Your task to perform on an android device: toggle notifications settings in the gmail app Image 0: 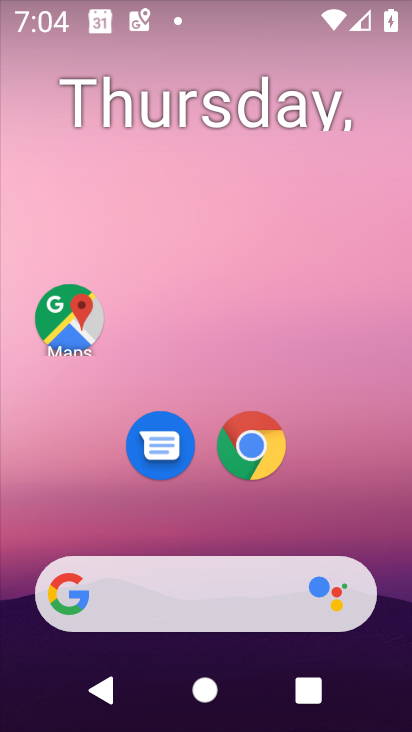
Step 0: drag from (404, 614) to (212, 0)
Your task to perform on an android device: toggle notifications settings in the gmail app Image 1: 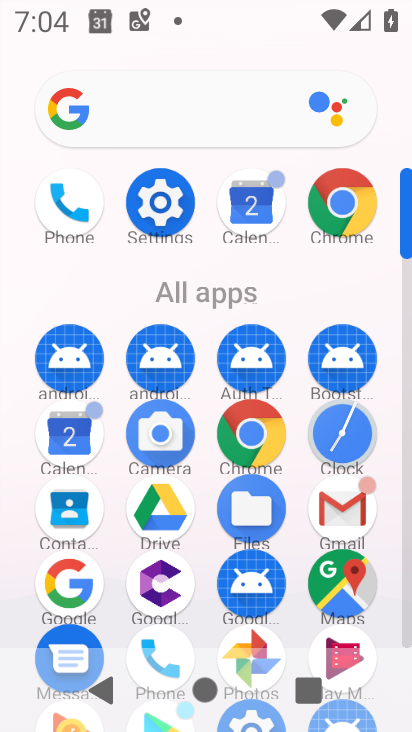
Step 1: click (334, 503)
Your task to perform on an android device: toggle notifications settings in the gmail app Image 2: 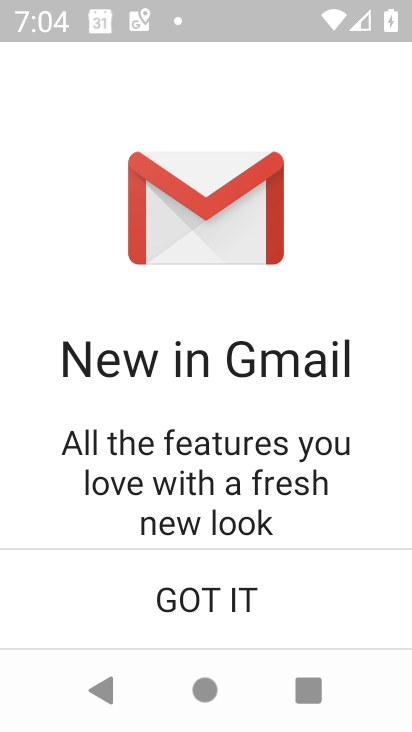
Step 2: click (208, 617)
Your task to perform on an android device: toggle notifications settings in the gmail app Image 3: 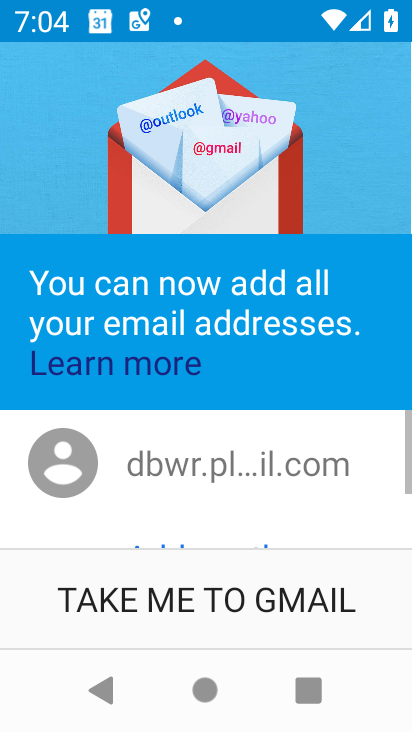
Step 3: click (208, 617)
Your task to perform on an android device: toggle notifications settings in the gmail app Image 4: 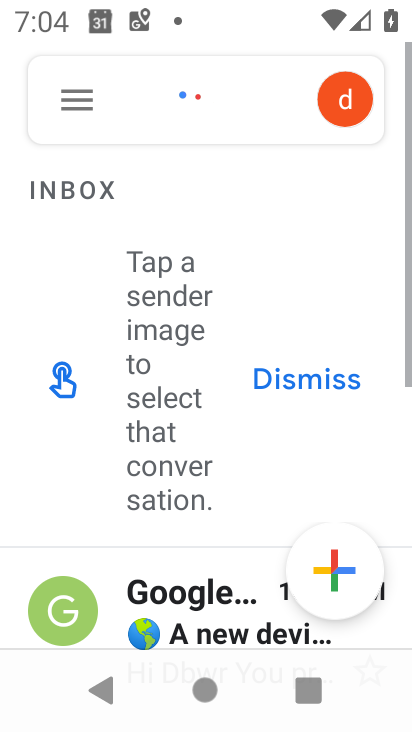
Step 4: click (63, 77)
Your task to perform on an android device: toggle notifications settings in the gmail app Image 5: 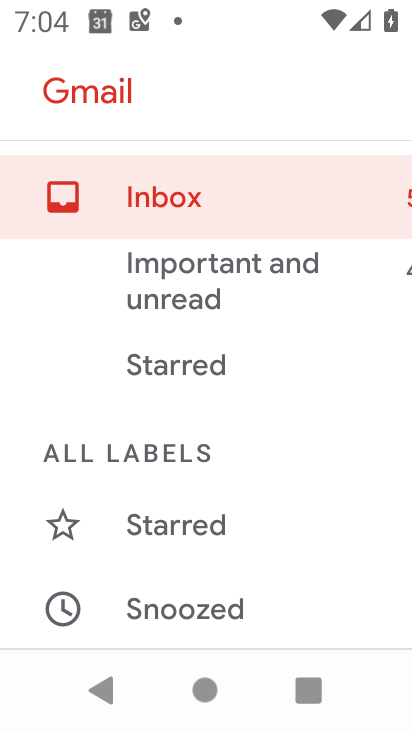
Step 5: drag from (106, 603) to (115, 15)
Your task to perform on an android device: toggle notifications settings in the gmail app Image 6: 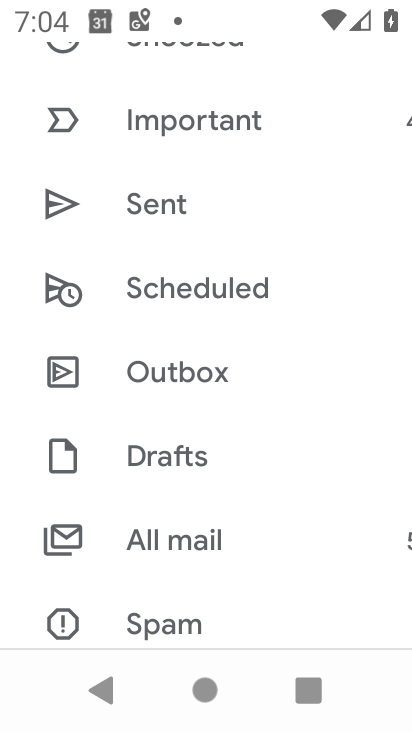
Step 6: drag from (94, 594) to (127, 14)
Your task to perform on an android device: toggle notifications settings in the gmail app Image 7: 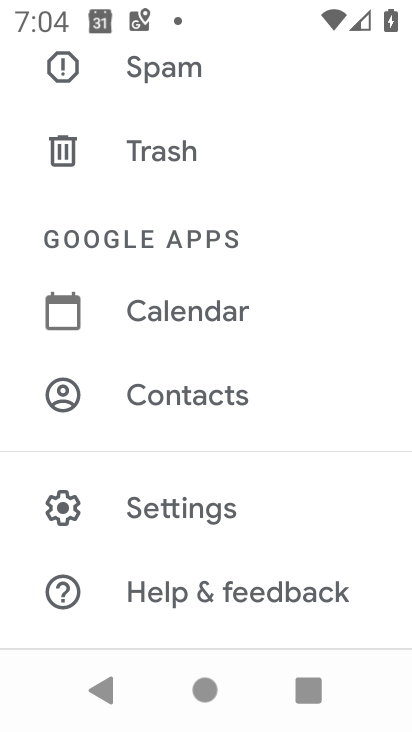
Step 7: click (166, 491)
Your task to perform on an android device: toggle notifications settings in the gmail app Image 8: 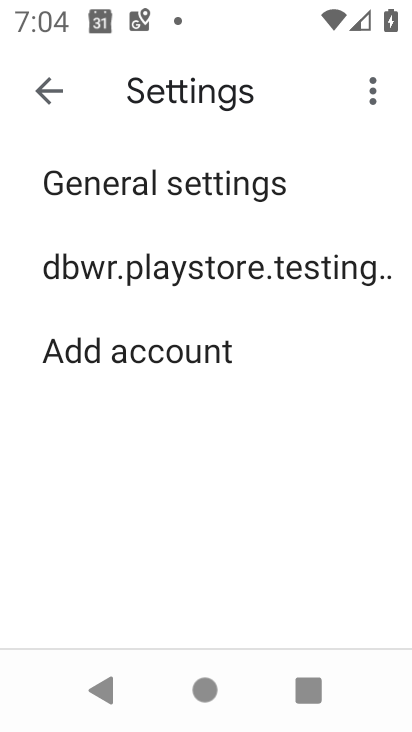
Step 8: click (166, 279)
Your task to perform on an android device: toggle notifications settings in the gmail app Image 9: 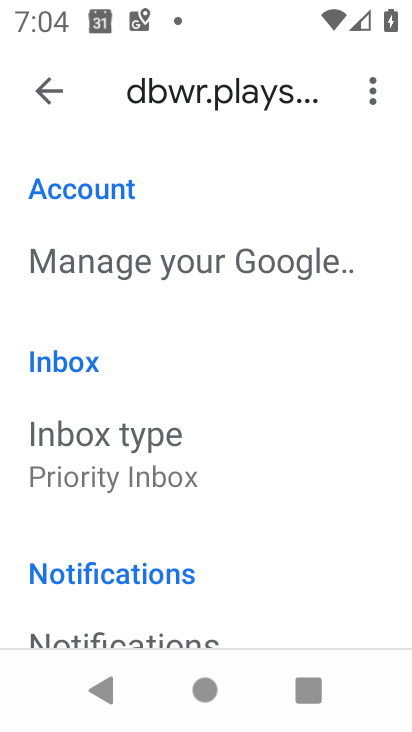
Step 9: click (188, 623)
Your task to perform on an android device: toggle notifications settings in the gmail app Image 10: 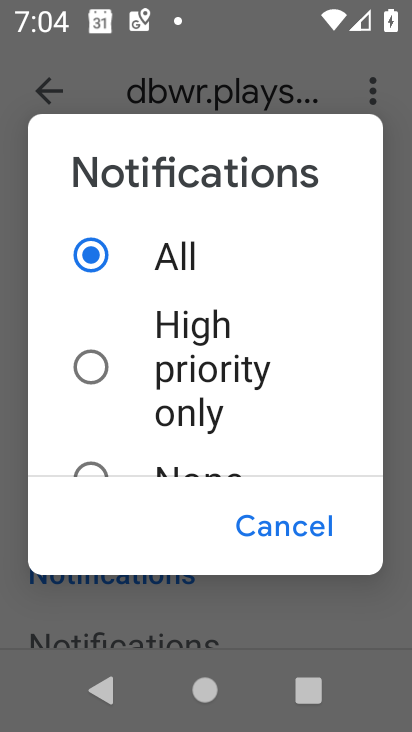
Step 10: drag from (130, 446) to (115, 167)
Your task to perform on an android device: toggle notifications settings in the gmail app Image 11: 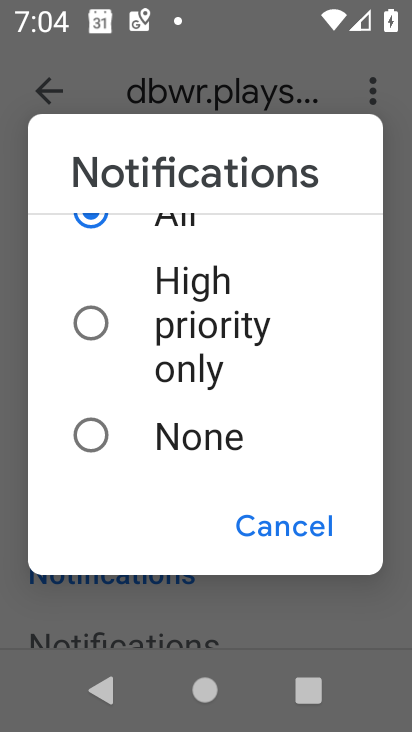
Step 11: click (81, 437)
Your task to perform on an android device: toggle notifications settings in the gmail app Image 12: 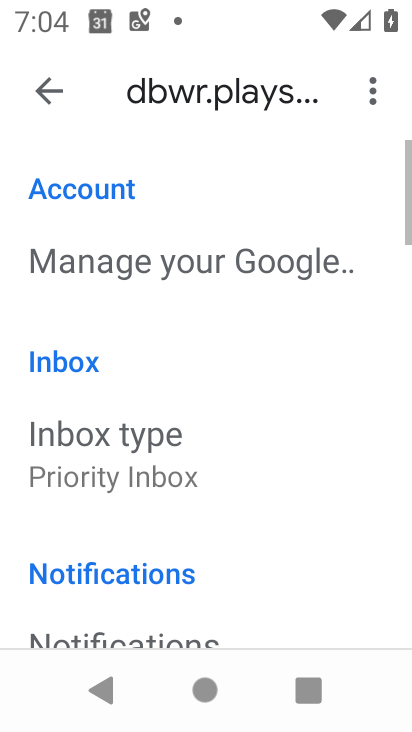
Step 12: task complete